Your task to perform on an android device: Open notification settings Image 0: 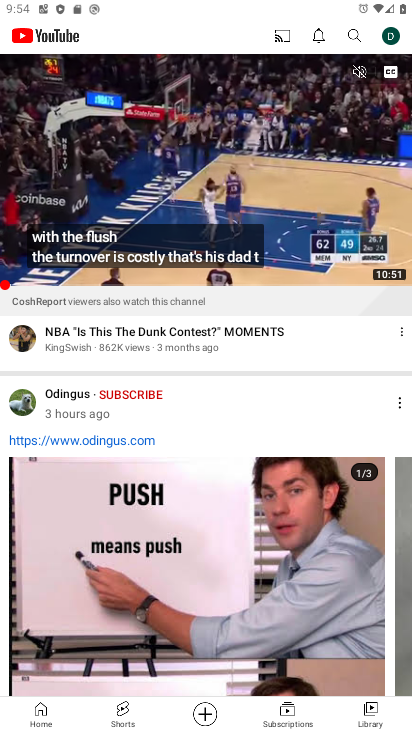
Step 0: press home button
Your task to perform on an android device: Open notification settings Image 1: 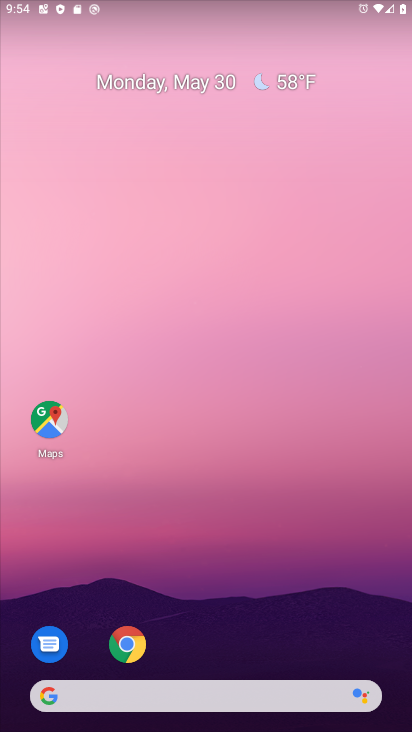
Step 1: drag from (369, 649) to (284, 139)
Your task to perform on an android device: Open notification settings Image 2: 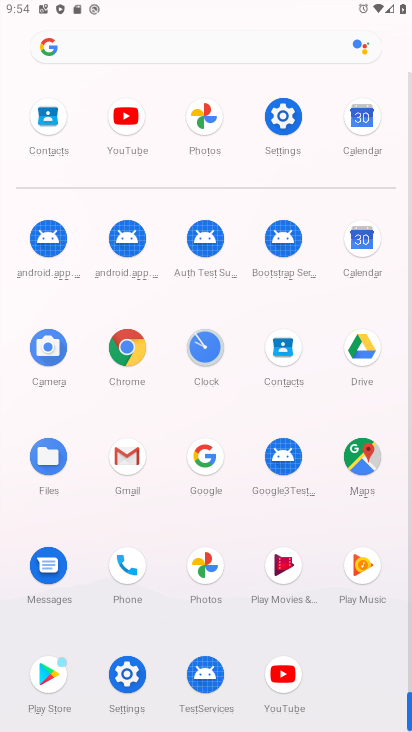
Step 2: click (126, 674)
Your task to perform on an android device: Open notification settings Image 3: 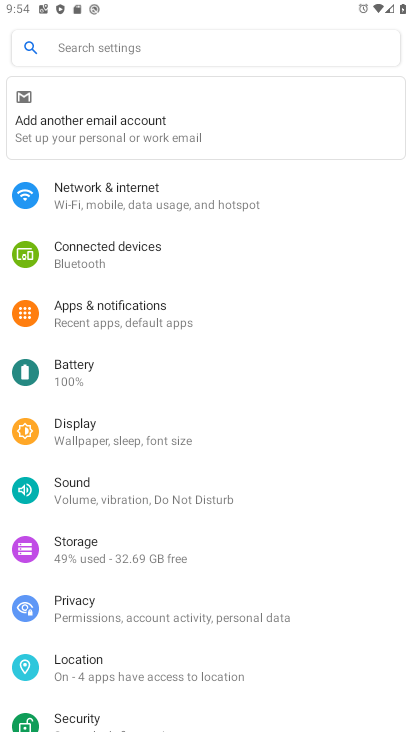
Step 3: click (115, 315)
Your task to perform on an android device: Open notification settings Image 4: 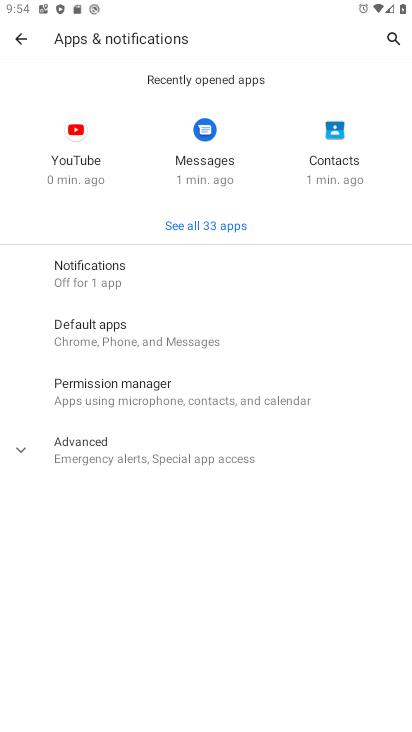
Step 4: click (77, 263)
Your task to perform on an android device: Open notification settings Image 5: 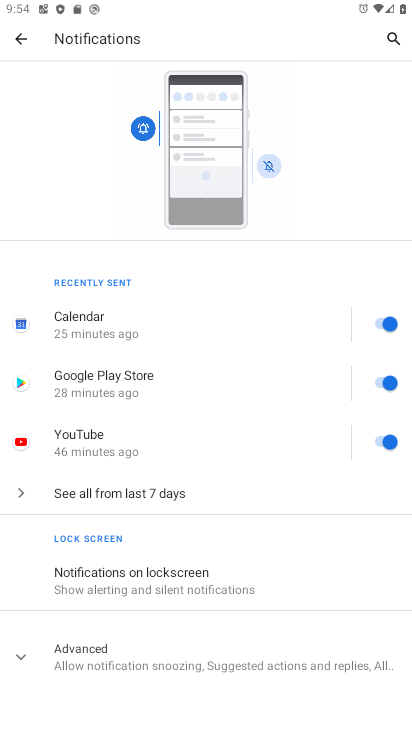
Step 5: click (40, 637)
Your task to perform on an android device: Open notification settings Image 6: 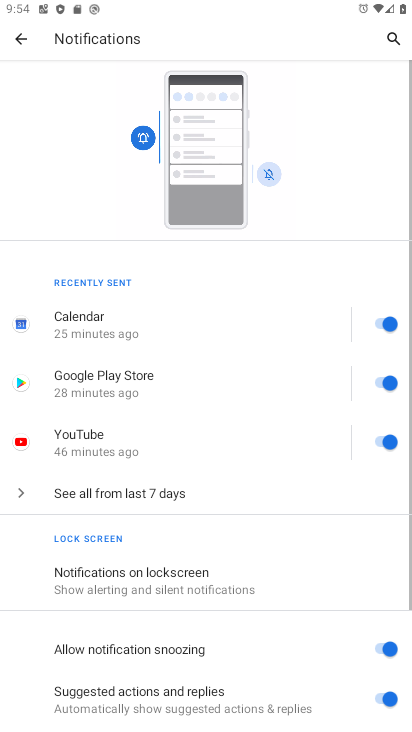
Step 6: task complete